Your task to perform on an android device: Open location settings Image 0: 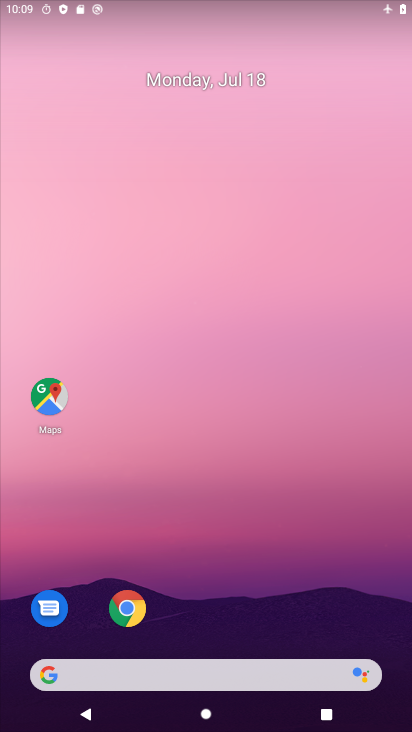
Step 0: drag from (262, 666) to (279, 6)
Your task to perform on an android device: Open location settings Image 1: 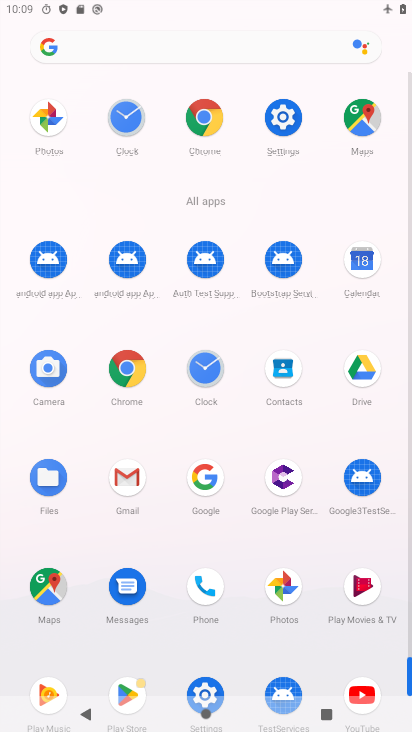
Step 1: drag from (273, 577) to (232, 96)
Your task to perform on an android device: Open location settings Image 2: 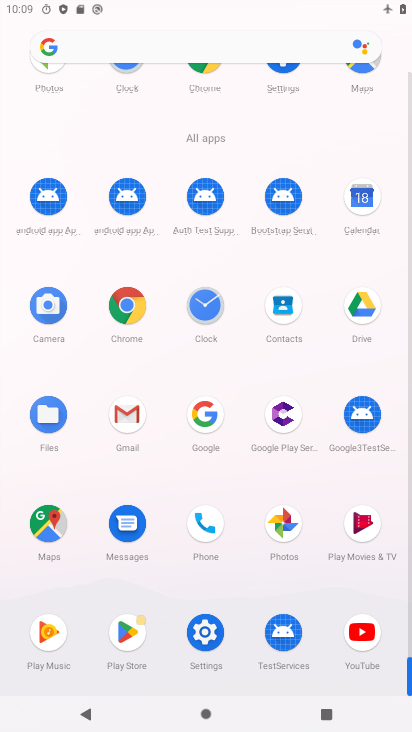
Step 2: click (209, 628)
Your task to perform on an android device: Open location settings Image 3: 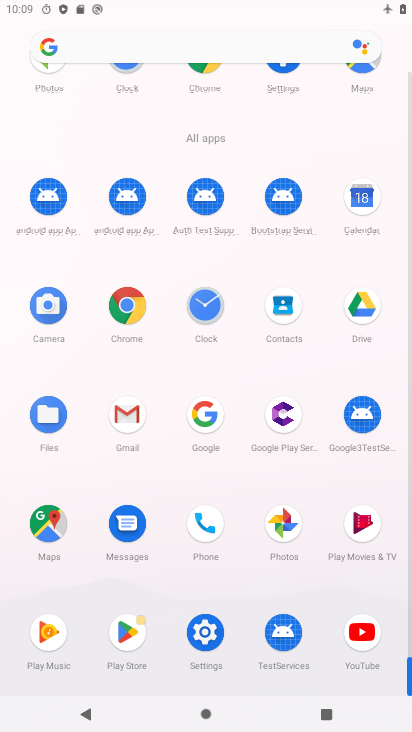
Step 3: click (209, 628)
Your task to perform on an android device: Open location settings Image 4: 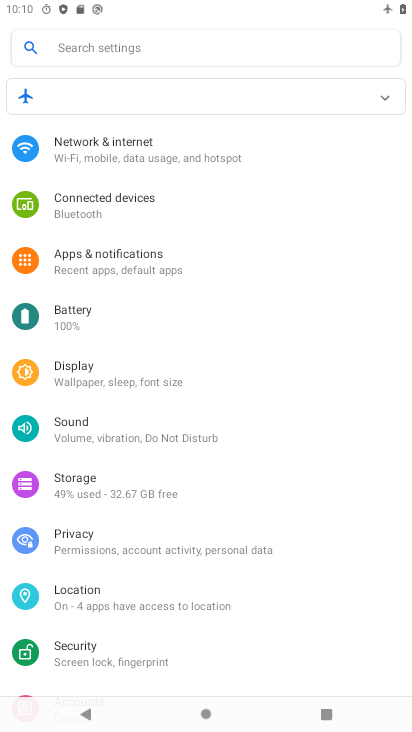
Step 4: click (97, 595)
Your task to perform on an android device: Open location settings Image 5: 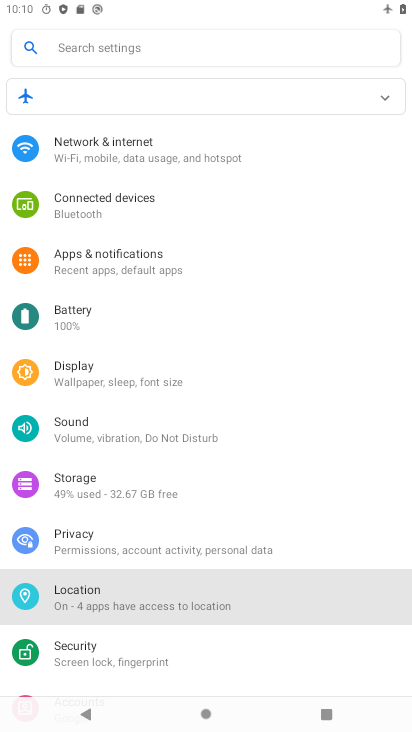
Step 5: click (91, 596)
Your task to perform on an android device: Open location settings Image 6: 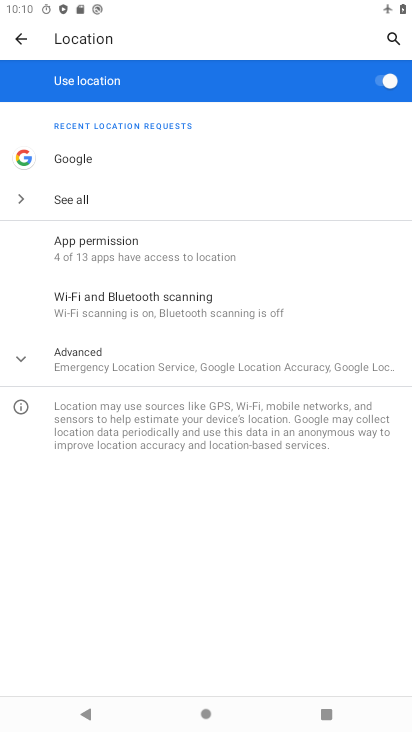
Step 6: task complete